Your task to perform on an android device: Find coffee shops on Maps Image 0: 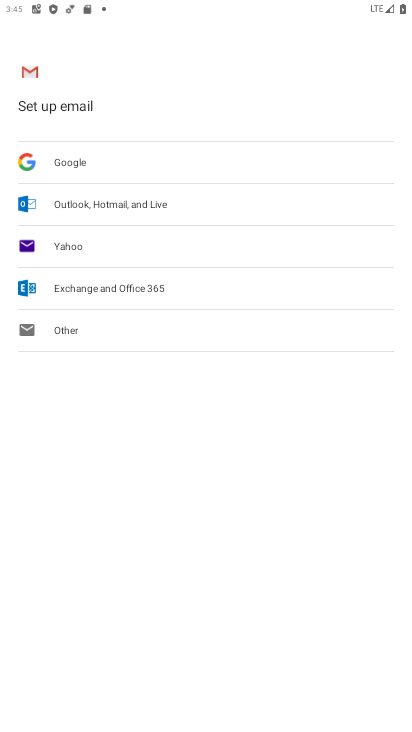
Step 0: press home button
Your task to perform on an android device: Find coffee shops on Maps Image 1: 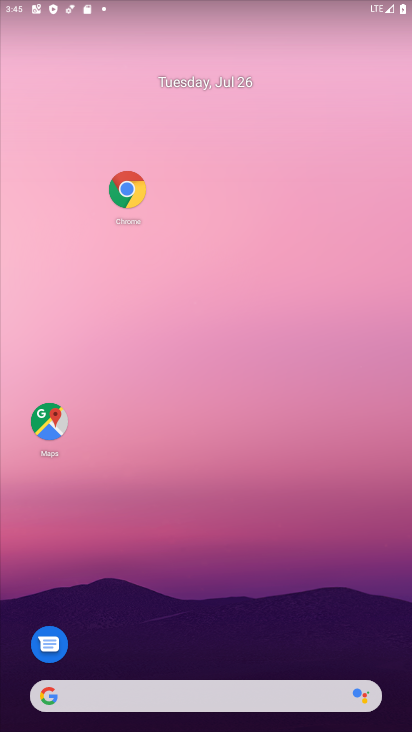
Step 1: drag from (203, 685) to (161, 120)
Your task to perform on an android device: Find coffee shops on Maps Image 2: 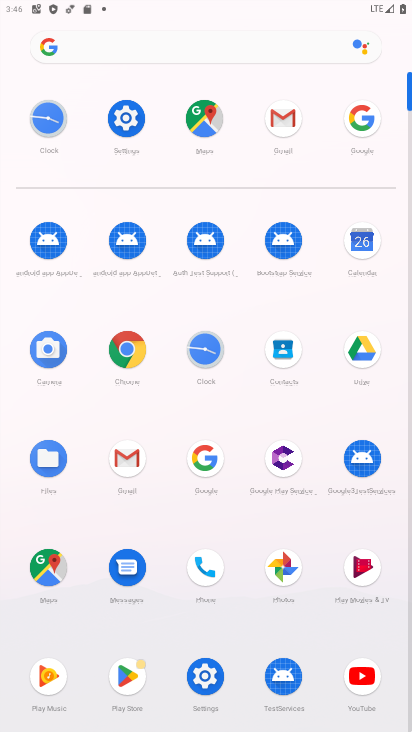
Step 2: click (36, 555)
Your task to perform on an android device: Find coffee shops on Maps Image 3: 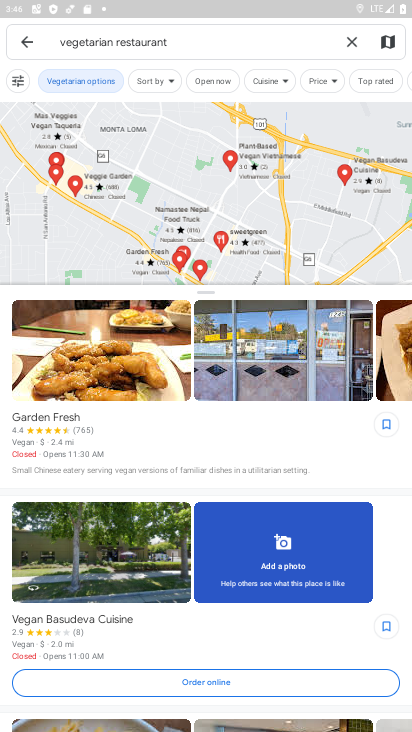
Step 3: click (177, 36)
Your task to perform on an android device: Find coffee shops on Maps Image 4: 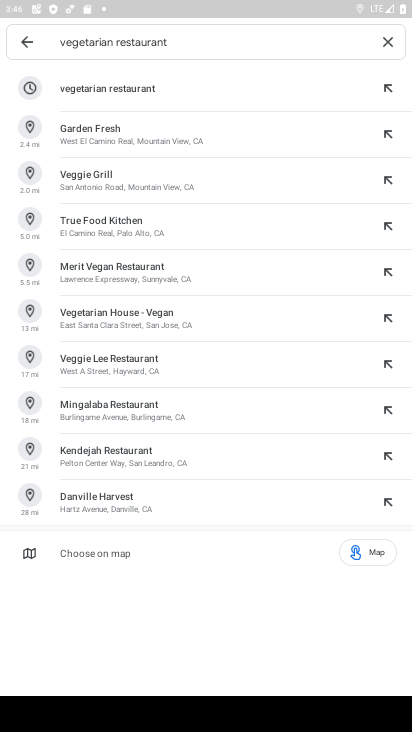
Step 4: click (382, 39)
Your task to perform on an android device: Find coffee shops on Maps Image 5: 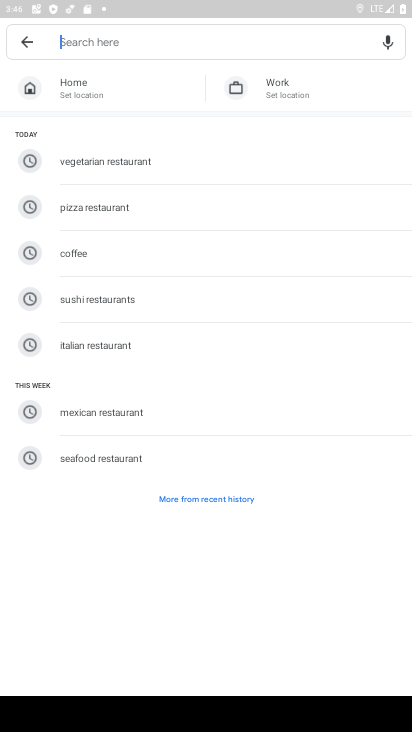
Step 5: click (95, 251)
Your task to perform on an android device: Find coffee shops on Maps Image 6: 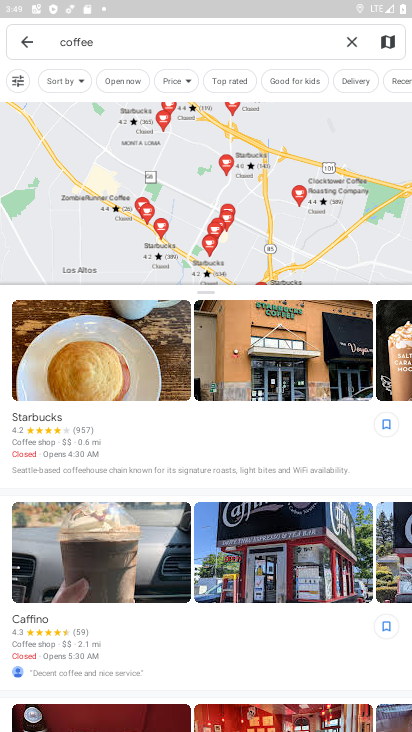
Step 6: task complete